Your task to perform on an android device: Find coffee shops on Maps Image 0: 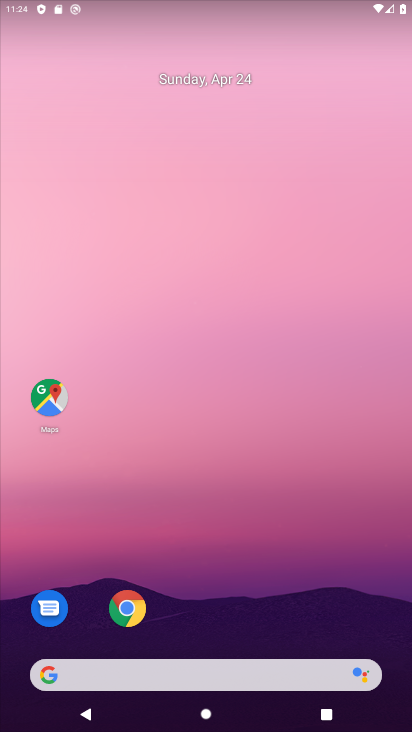
Step 0: drag from (217, 670) to (216, 193)
Your task to perform on an android device: Find coffee shops on Maps Image 1: 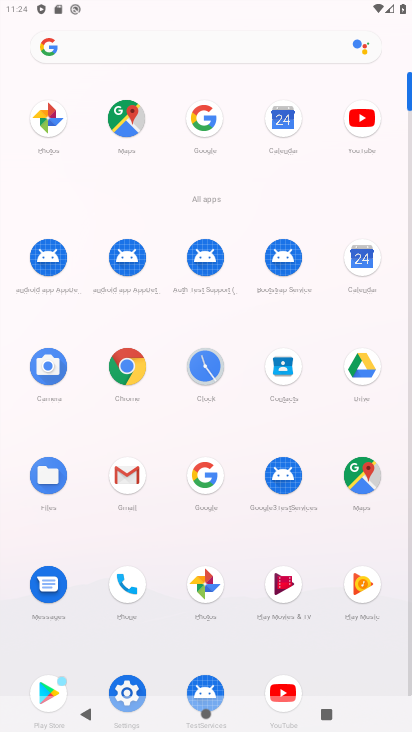
Step 1: click (353, 474)
Your task to perform on an android device: Find coffee shops on Maps Image 2: 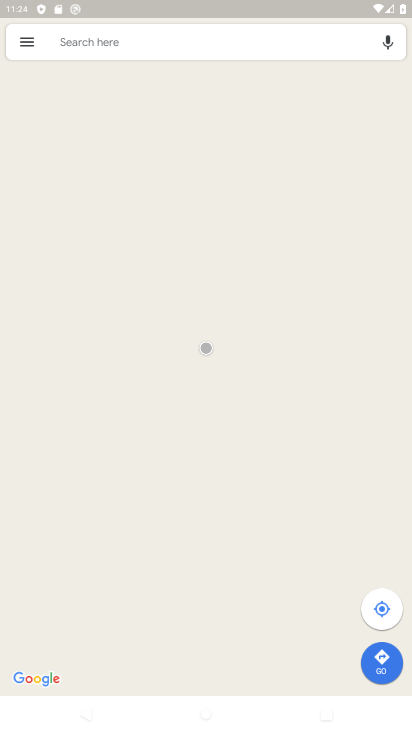
Step 2: click (175, 40)
Your task to perform on an android device: Find coffee shops on Maps Image 3: 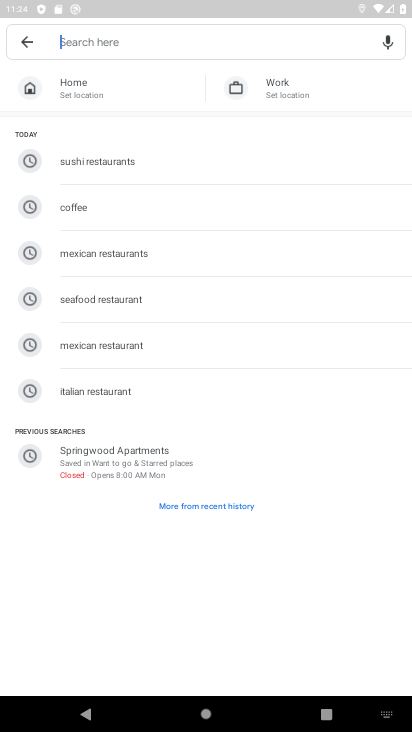
Step 3: type "coffee"
Your task to perform on an android device: Find coffee shops on Maps Image 4: 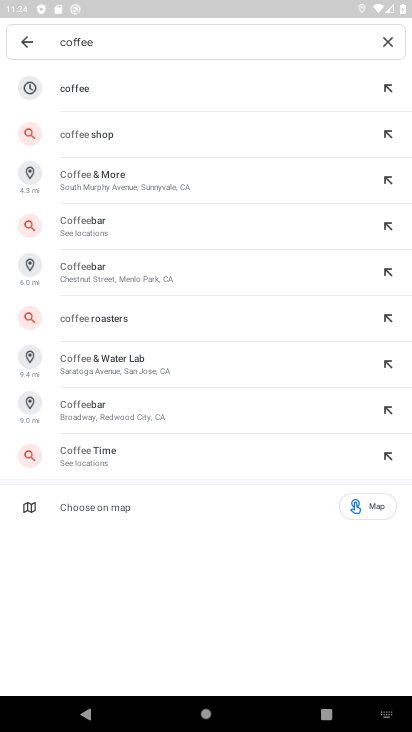
Step 4: click (123, 90)
Your task to perform on an android device: Find coffee shops on Maps Image 5: 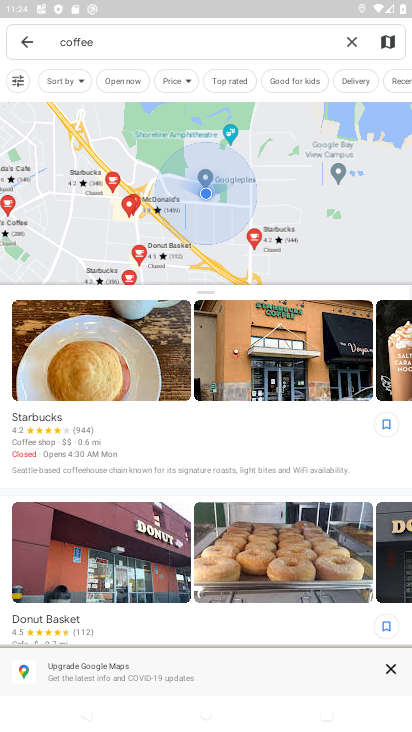
Step 5: task complete